Your task to perform on an android device: toggle javascript in the chrome app Image 0: 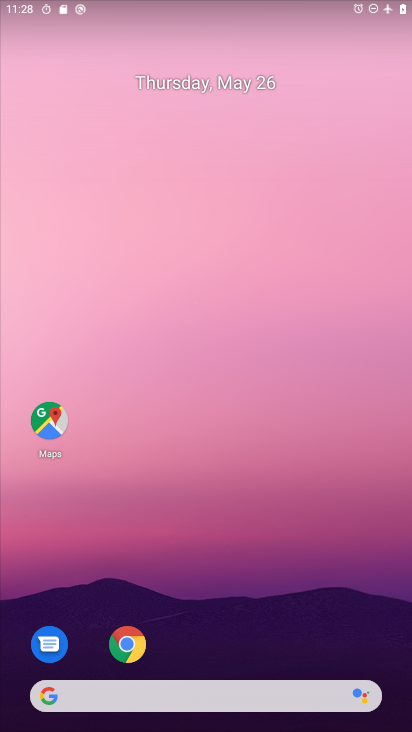
Step 0: drag from (357, 628) to (379, 253)
Your task to perform on an android device: toggle javascript in the chrome app Image 1: 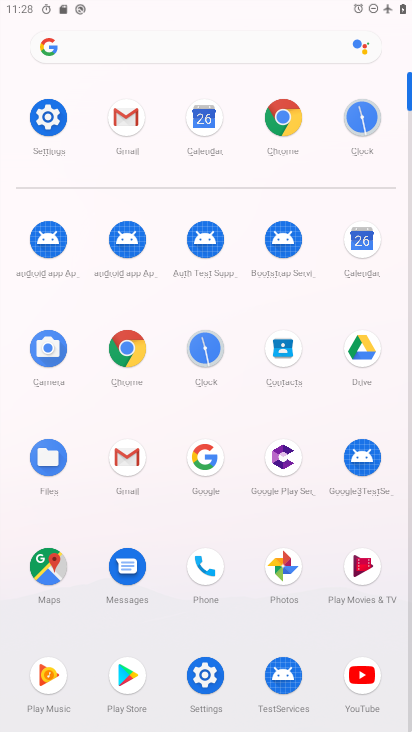
Step 1: click (128, 358)
Your task to perform on an android device: toggle javascript in the chrome app Image 2: 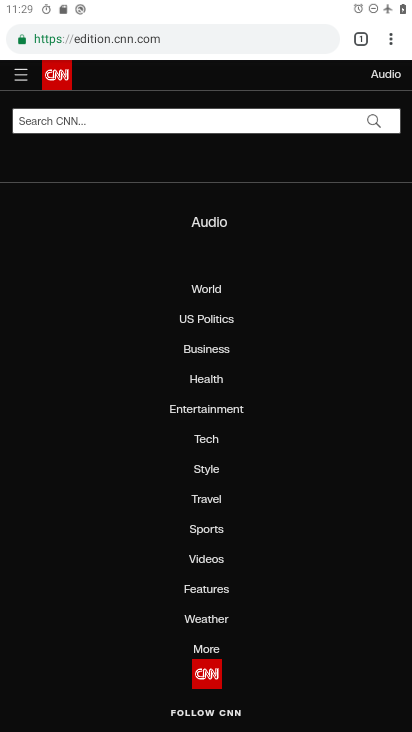
Step 2: click (388, 41)
Your task to perform on an android device: toggle javascript in the chrome app Image 3: 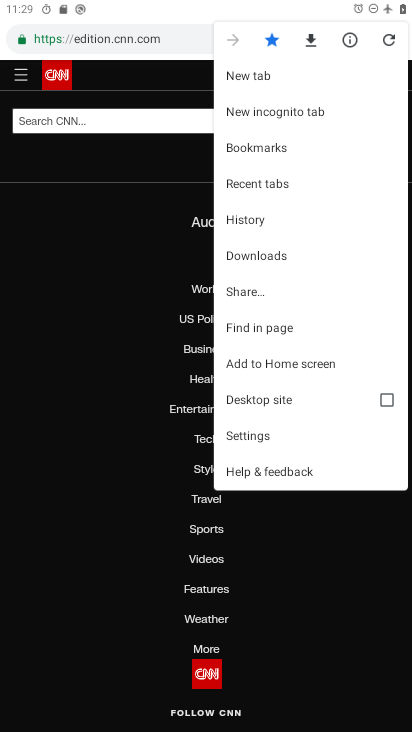
Step 3: click (275, 436)
Your task to perform on an android device: toggle javascript in the chrome app Image 4: 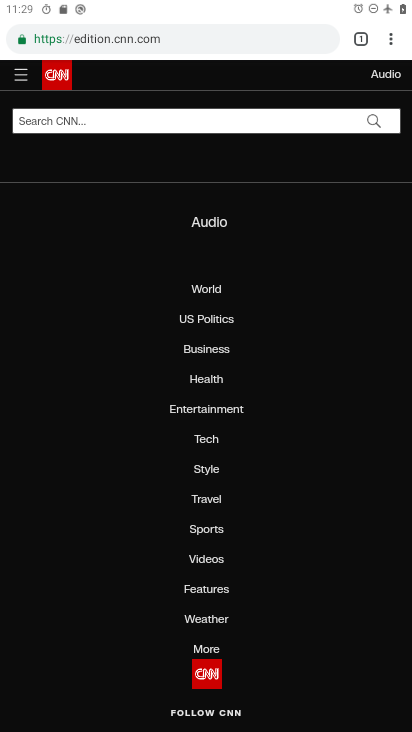
Step 4: click (275, 436)
Your task to perform on an android device: toggle javascript in the chrome app Image 5: 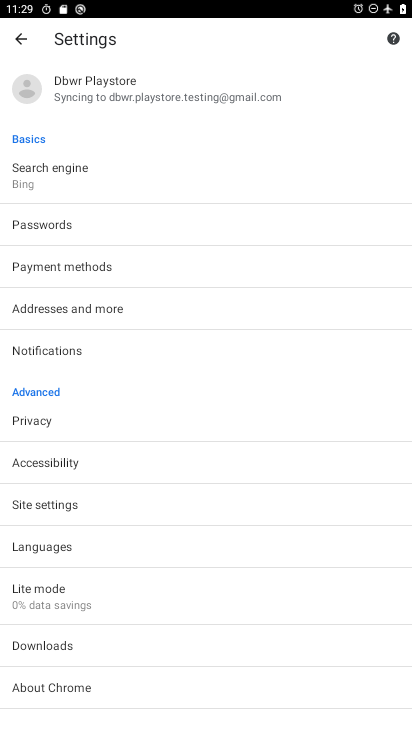
Step 5: click (193, 506)
Your task to perform on an android device: toggle javascript in the chrome app Image 6: 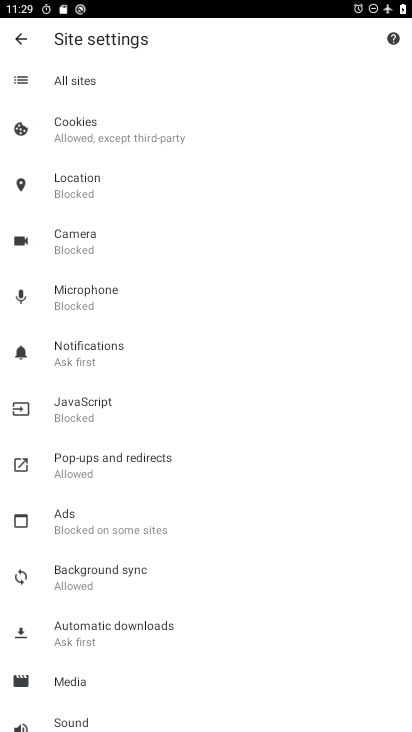
Step 6: click (129, 411)
Your task to perform on an android device: toggle javascript in the chrome app Image 7: 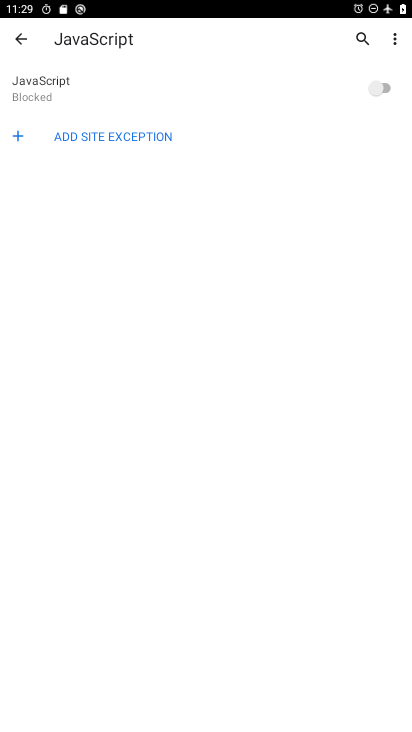
Step 7: click (377, 89)
Your task to perform on an android device: toggle javascript in the chrome app Image 8: 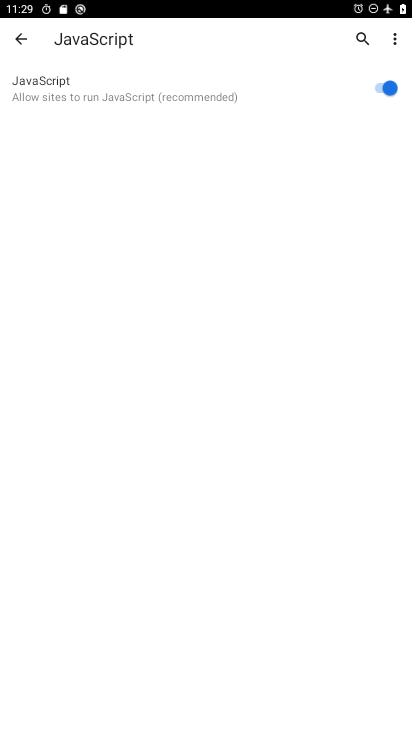
Step 8: task complete